Your task to perform on an android device: Go to settings Image 0: 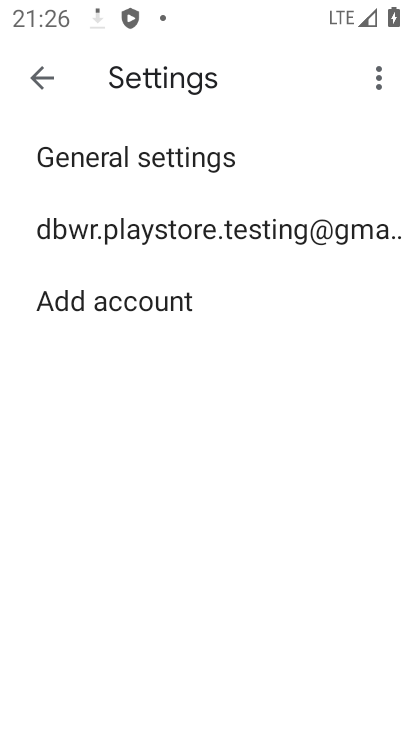
Step 0: task complete